Your task to perform on an android device: Do I have any events this weekend? Image 0: 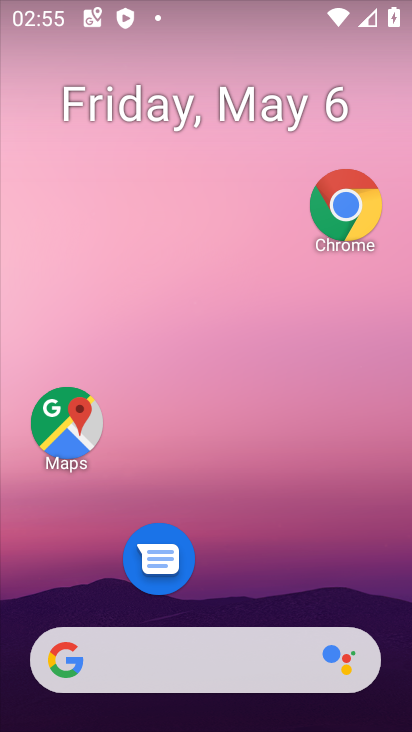
Step 0: drag from (159, 639) to (290, 145)
Your task to perform on an android device: Do I have any events this weekend? Image 1: 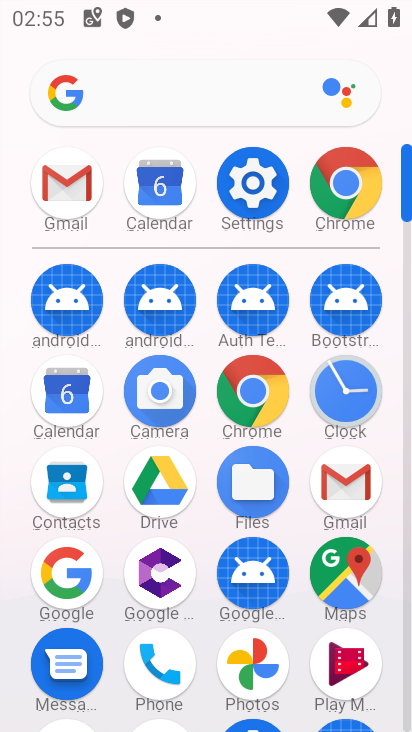
Step 1: click (77, 408)
Your task to perform on an android device: Do I have any events this weekend? Image 2: 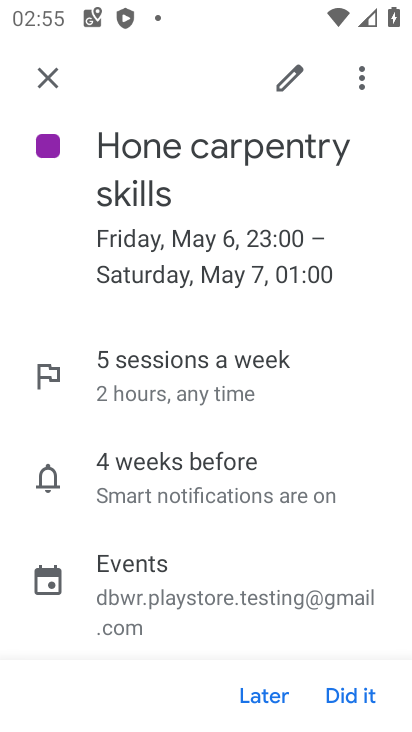
Step 2: click (47, 87)
Your task to perform on an android device: Do I have any events this weekend? Image 3: 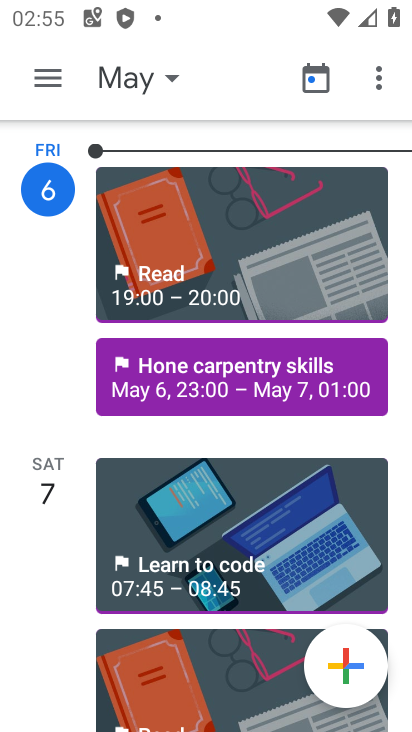
Step 3: click (134, 76)
Your task to perform on an android device: Do I have any events this weekend? Image 4: 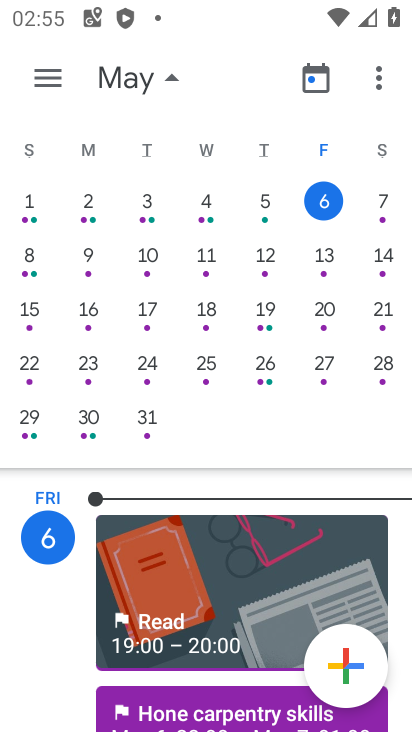
Step 4: click (382, 203)
Your task to perform on an android device: Do I have any events this weekend? Image 5: 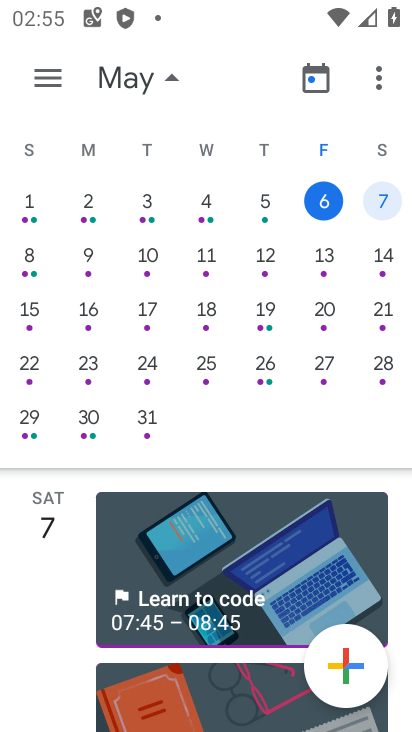
Step 5: click (56, 73)
Your task to perform on an android device: Do I have any events this weekend? Image 6: 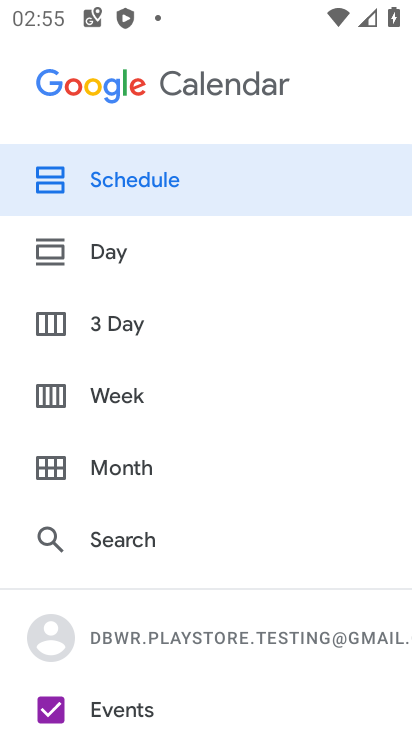
Step 6: click (111, 183)
Your task to perform on an android device: Do I have any events this weekend? Image 7: 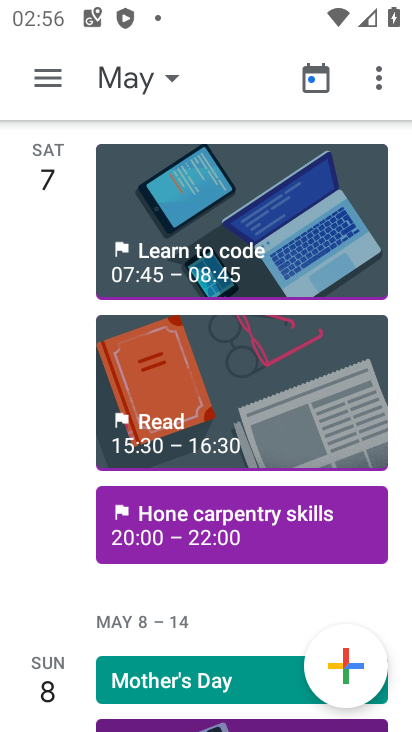
Step 7: click (206, 517)
Your task to perform on an android device: Do I have any events this weekend? Image 8: 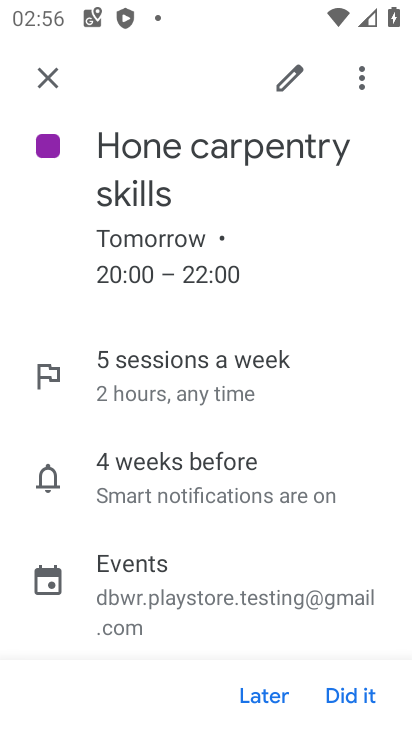
Step 8: task complete